Your task to perform on an android device: Open Maps and search for coffee Image 0: 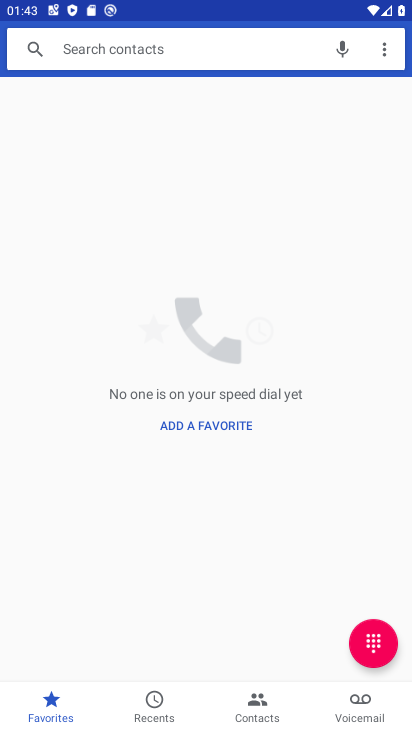
Step 0: press home button
Your task to perform on an android device: Open Maps and search for coffee Image 1: 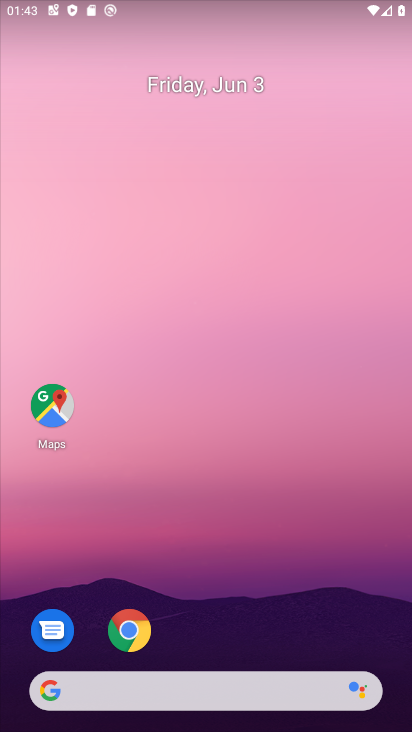
Step 1: click (38, 392)
Your task to perform on an android device: Open Maps and search for coffee Image 2: 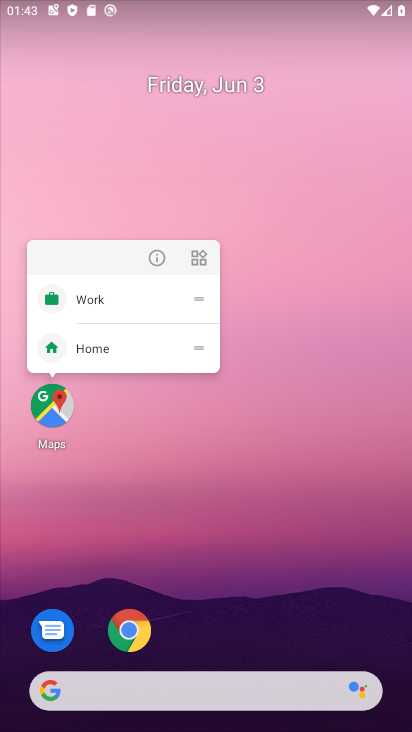
Step 2: click (53, 415)
Your task to perform on an android device: Open Maps and search for coffee Image 3: 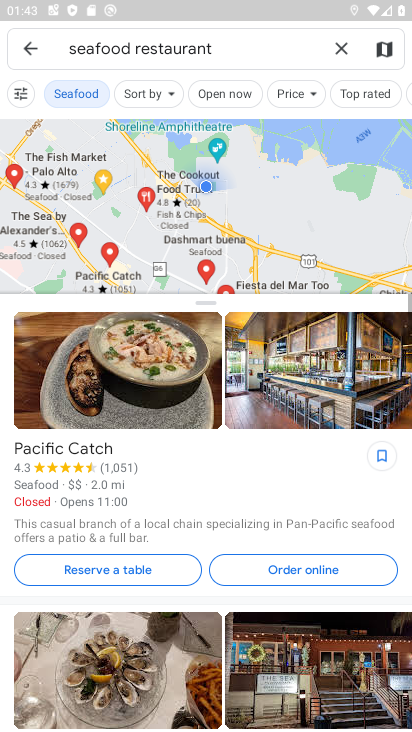
Step 3: click (340, 49)
Your task to perform on an android device: Open Maps and search for coffee Image 4: 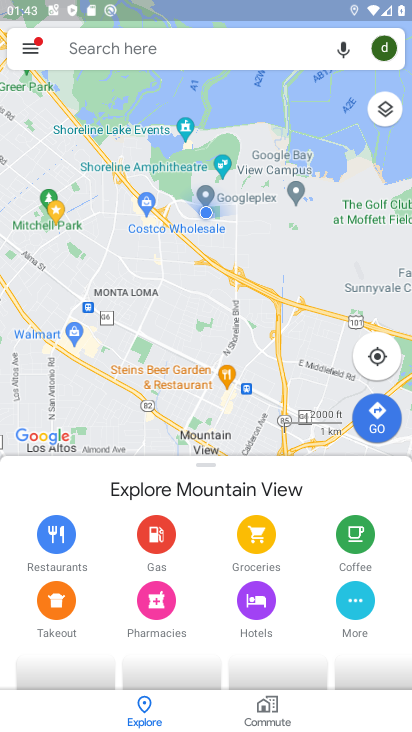
Step 4: click (221, 54)
Your task to perform on an android device: Open Maps and search for coffee Image 5: 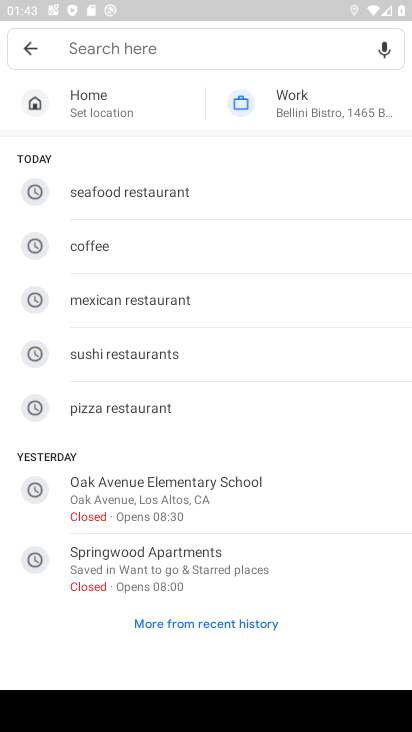
Step 5: click (98, 249)
Your task to perform on an android device: Open Maps and search for coffee Image 6: 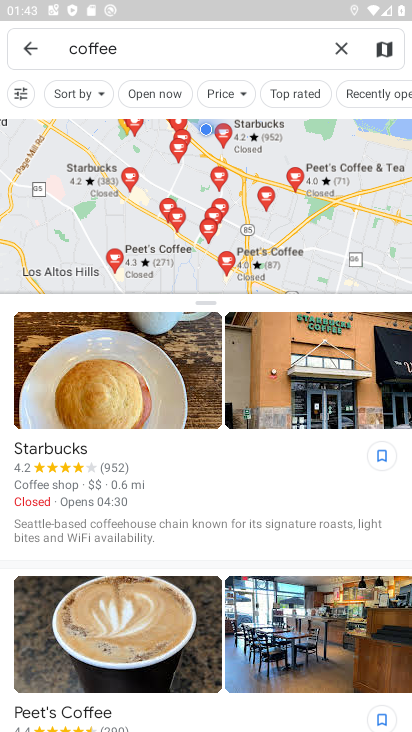
Step 6: task complete